Your task to perform on an android device: Search for pizza restaurants on Maps Image 0: 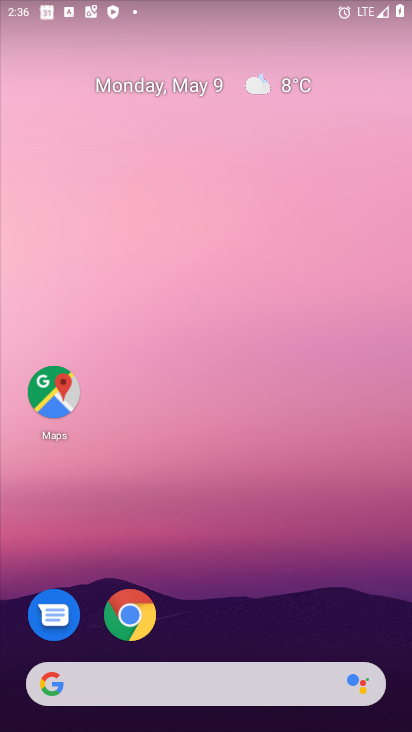
Step 0: click (48, 390)
Your task to perform on an android device: Search for pizza restaurants on Maps Image 1: 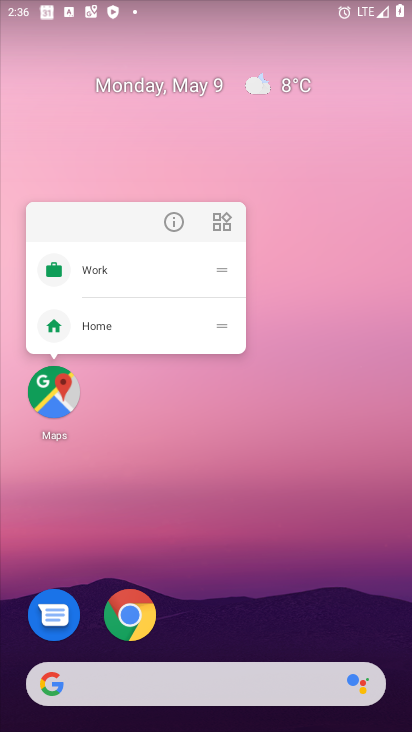
Step 1: click (50, 392)
Your task to perform on an android device: Search for pizza restaurants on Maps Image 2: 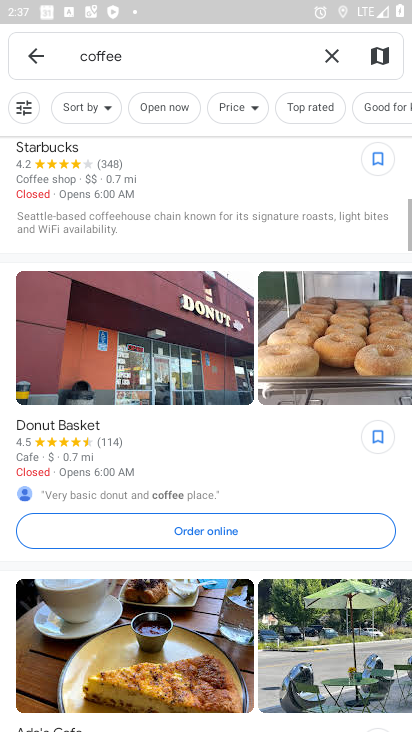
Step 2: click (329, 59)
Your task to perform on an android device: Search for pizza restaurants on Maps Image 3: 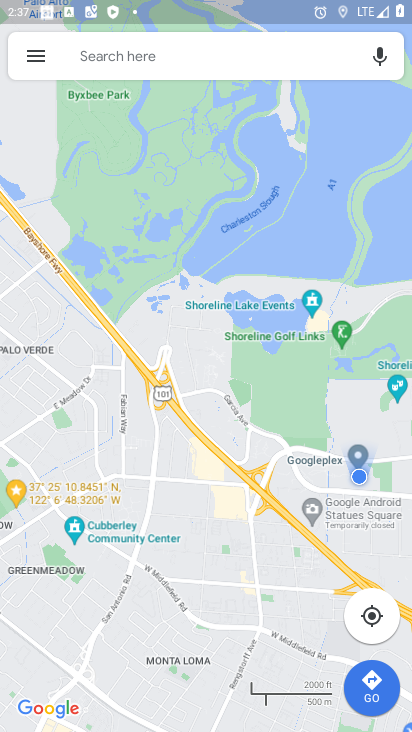
Step 3: click (111, 55)
Your task to perform on an android device: Search for pizza restaurants on Maps Image 4: 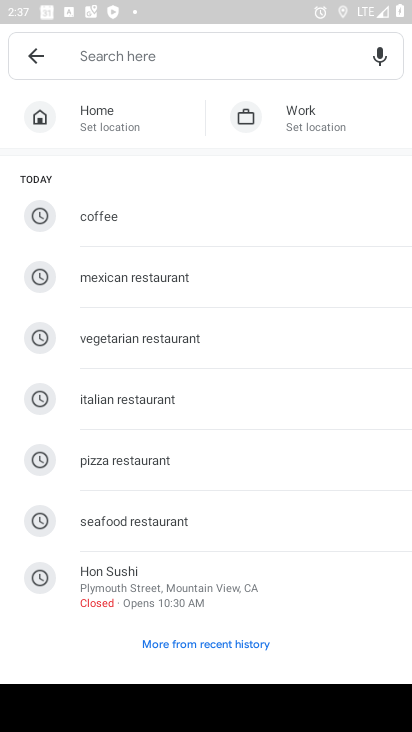
Step 4: type "pizzarestaurants"
Your task to perform on an android device: Search for pizza restaurants on Maps Image 5: 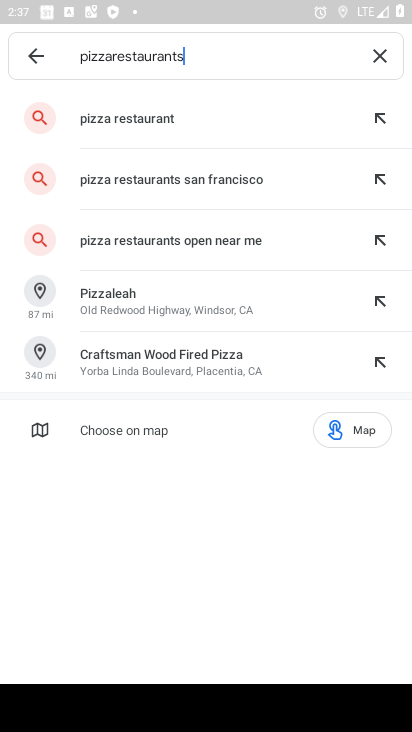
Step 5: click (153, 108)
Your task to perform on an android device: Search for pizza restaurants on Maps Image 6: 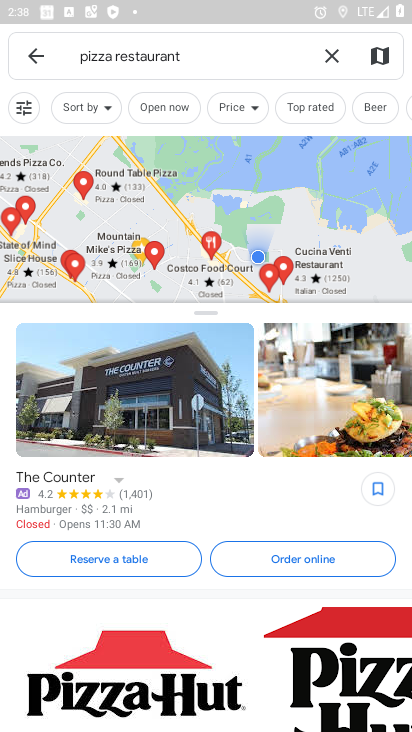
Step 6: task complete